Your task to perform on an android device: stop showing notifications on the lock screen Image 0: 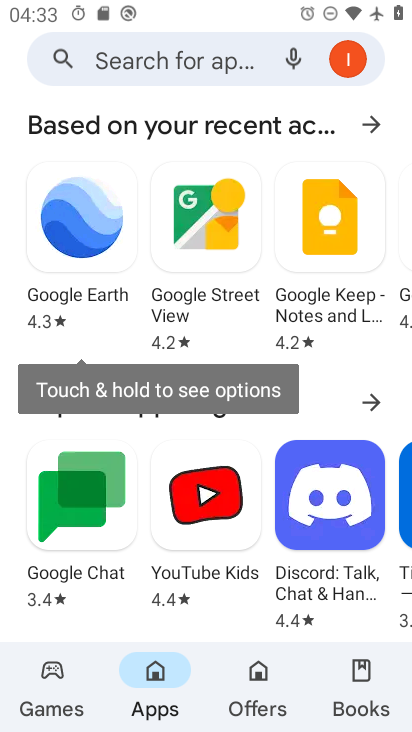
Step 0: press home button
Your task to perform on an android device: stop showing notifications on the lock screen Image 1: 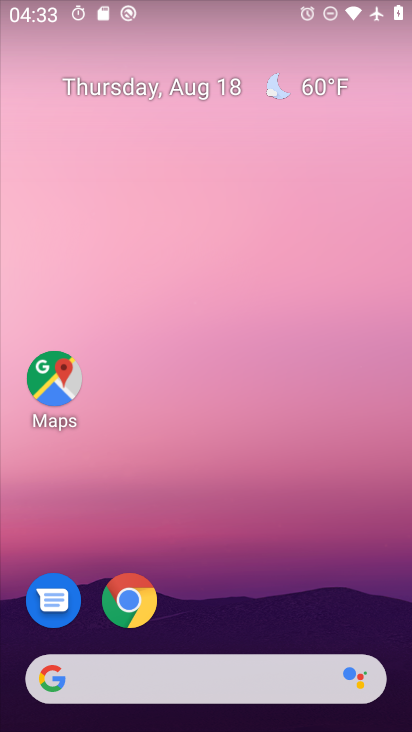
Step 1: drag from (235, 629) to (333, 135)
Your task to perform on an android device: stop showing notifications on the lock screen Image 2: 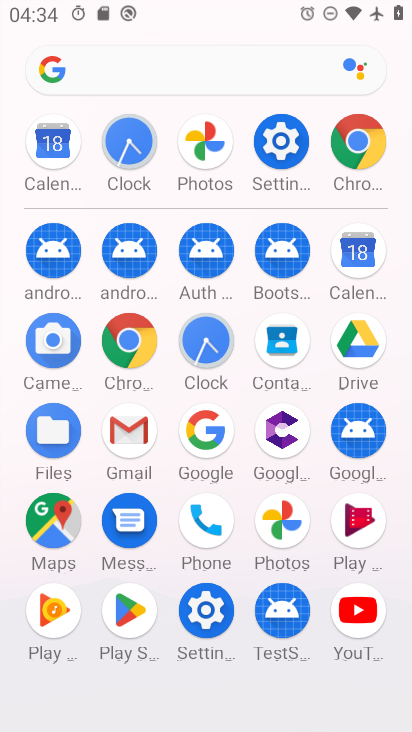
Step 2: click (287, 143)
Your task to perform on an android device: stop showing notifications on the lock screen Image 3: 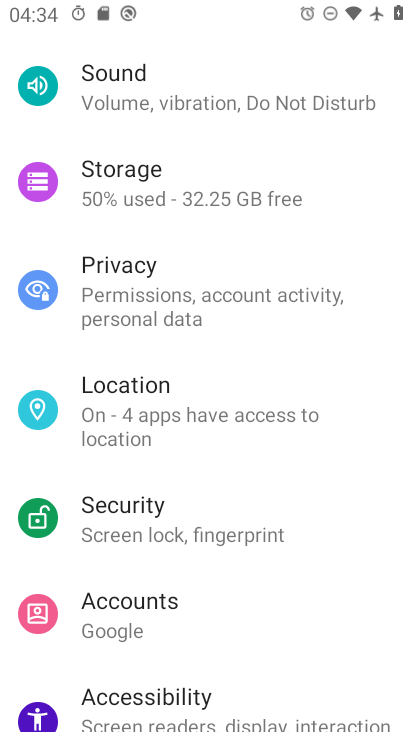
Step 3: drag from (294, 200) to (320, 726)
Your task to perform on an android device: stop showing notifications on the lock screen Image 4: 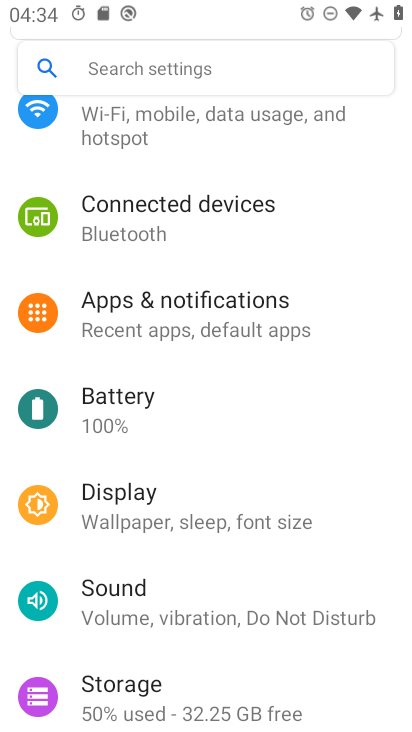
Step 4: click (163, 310)
Your task to perform on an android device: stop showing notifications on the lock screen Image 5: 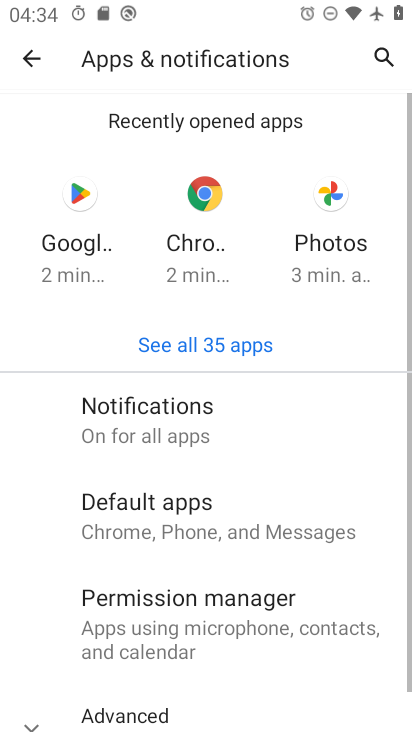
Step 5: click (153, 408)
Your task to perform on an android device: stop showing notifications on the lock screen Image 6: 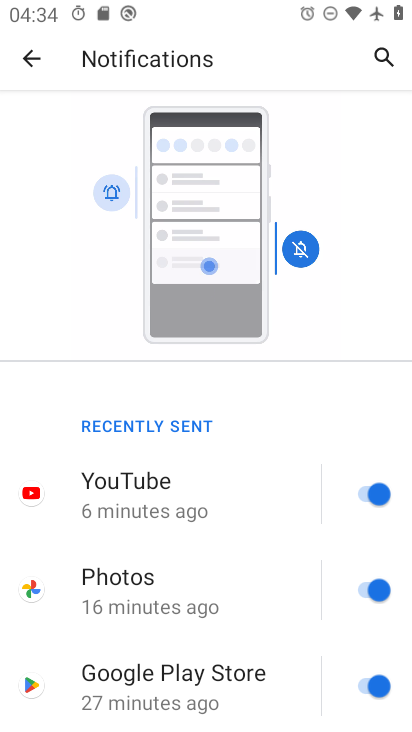
Step 6: drag from (288, 570) to (332, 21)
Your task to perform on an android device: stop showing notifications on the lock screen Image 7: 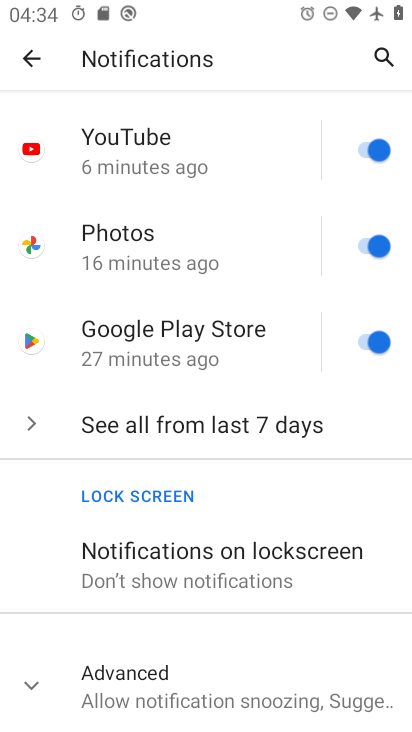
Step 7: click (167, 566)
Your task to perform on an android device: stop showing notifications on the lock screen Image 8: 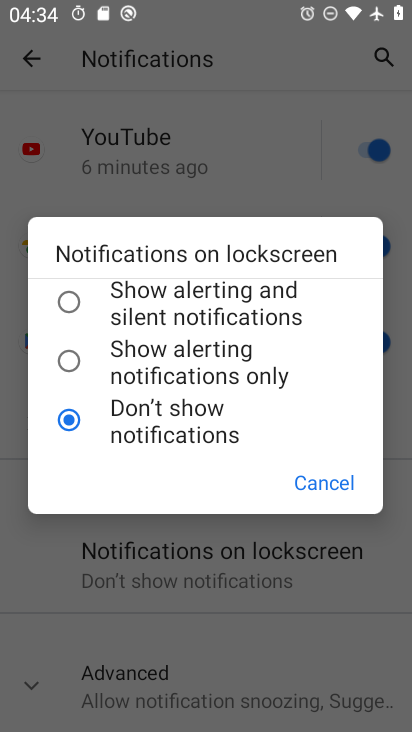
Step 8: task complete